Your task to perform on an android device: set the timer Image 0: 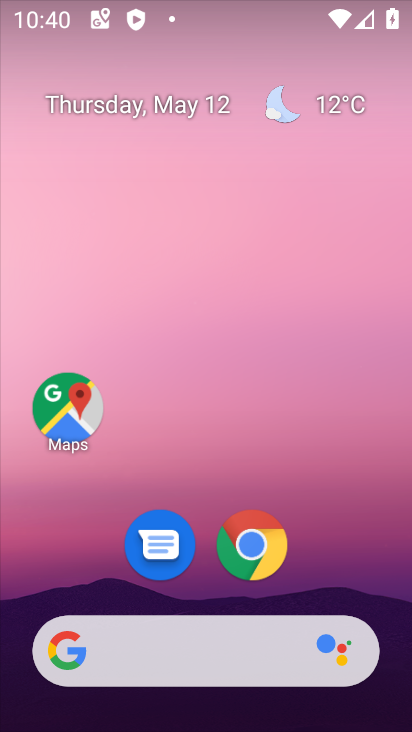
Step 0: drag from (202, 585) to (184, 0)
Your task to perform on an android device: set the timer Image 1: 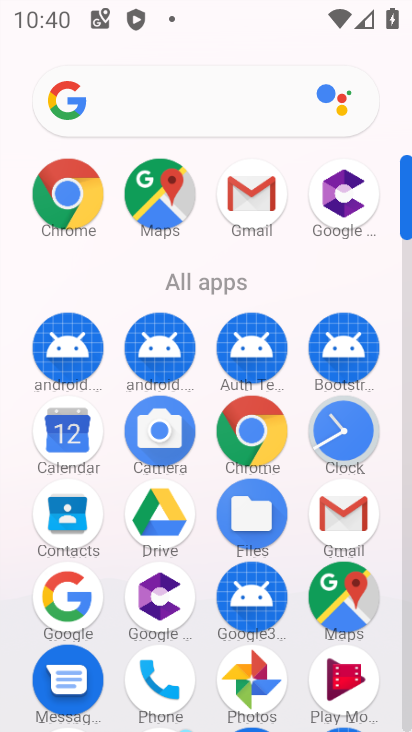
Step 1: click (340, 422)
Your task to perform on an android device: set the timer Image 2: 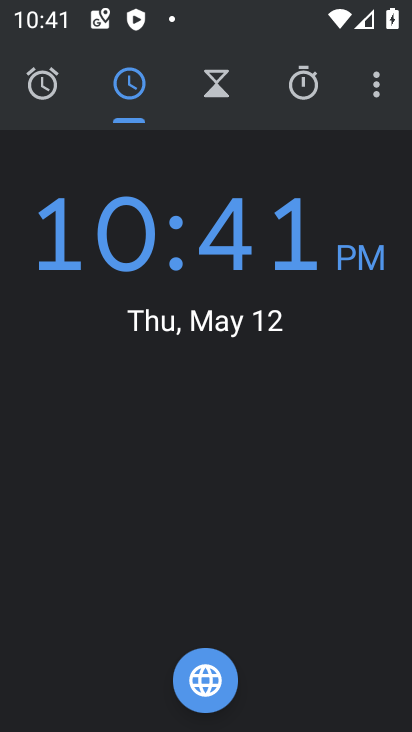
Step 2: click (208, 91)
Your task to perform on an android device: set the timer Image 3: 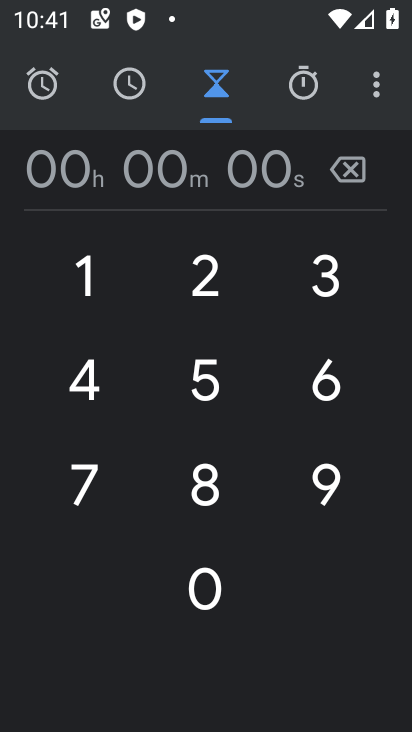
Step 3: click (193, 286)
Your task to perform on an android device: set the timer Image 4: 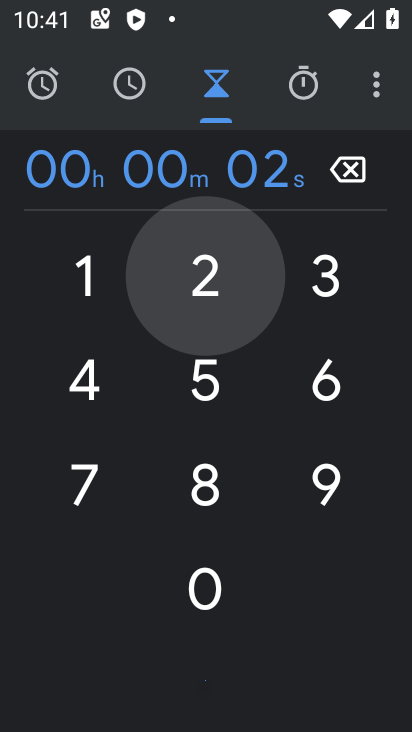
Step 4: click (199, 608)
Your task to perform on an android device: set the timer Image 5: 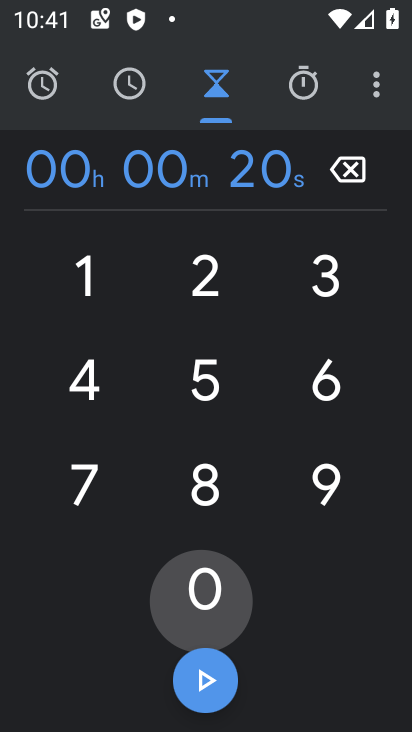
Step 5: click (199, 608)
Your task to perform on an android device: set the timer Image 6: 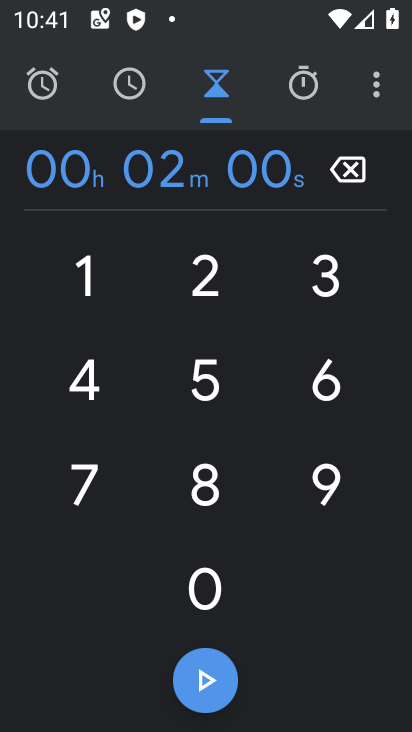
Step 6: click (198, 608)
Your task to perform on an android device: set the timer Image 7: 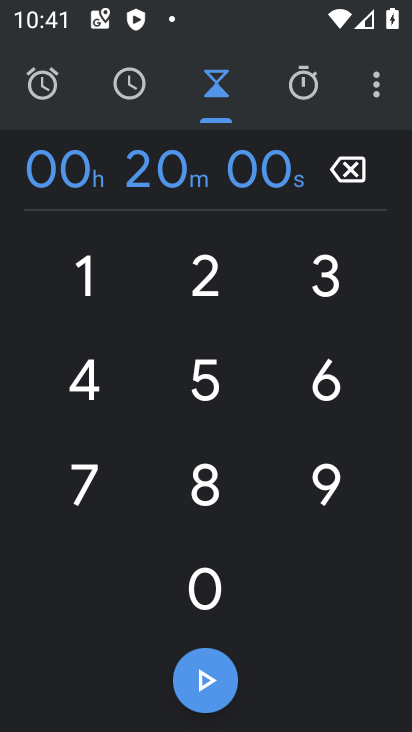
Step 7: click (208, 686)
Your task to perform on an android device: set the timer Image 8: 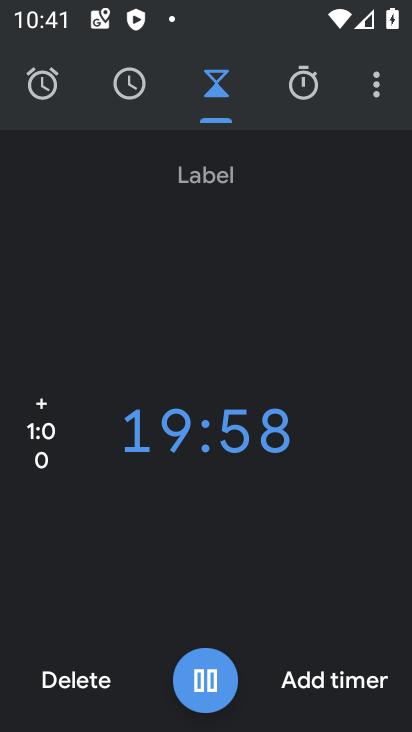
Step 8: task complete